Your task to perform on an android device: clear history in the chrome app Image 0: 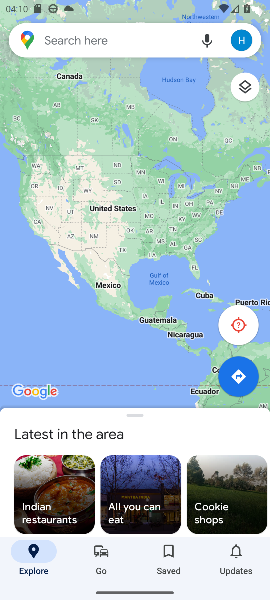
Step 0: press home button
Your task to perform on an android device: clear history in the chrome app Image 1: 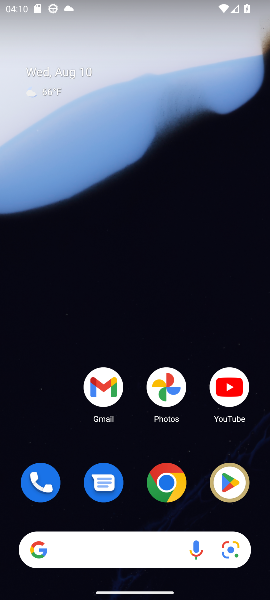
Step 1: drag from (125, 515) to (202, 53)
Your task to perform on an android device: clear history in the chrome app Image 2: 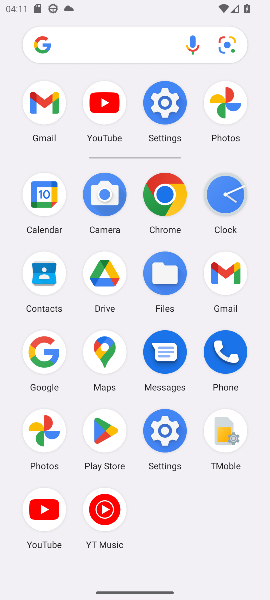
Step 2: click (161, 193)
Your task to perform on an android device: clear history in the chrome app Image 3: 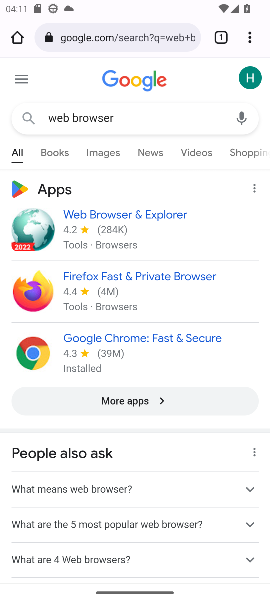
Step 3: drag from (252, 34) to (156, 148)
Your task to perform on an android device: clear history in the chrome app Image 4: 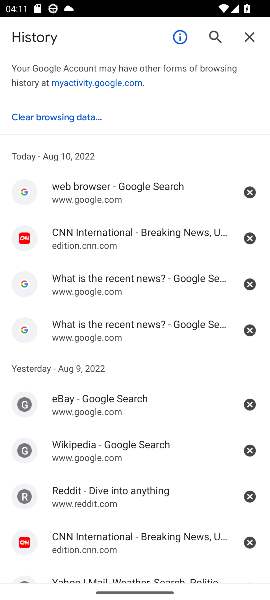
Step 4: click (23, 182)
Your task to perform on an android device: clear history in the chrome app Image 5: 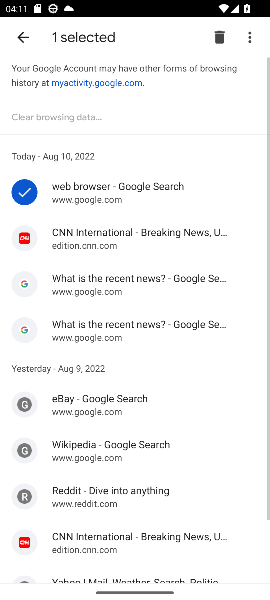
Step 5: click (18, 238)
Your task to perform on an android device: clear history in the chrome app Image 6: 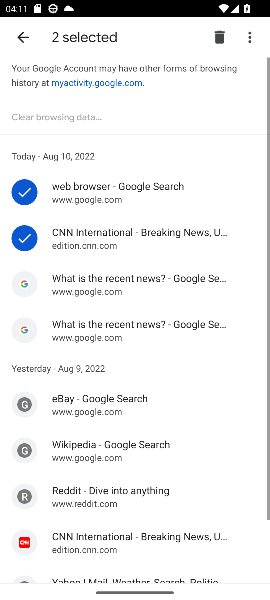
Step 6: click (23, 275)
Your task to perform on an android device: clear history in the chrome app Image 7: 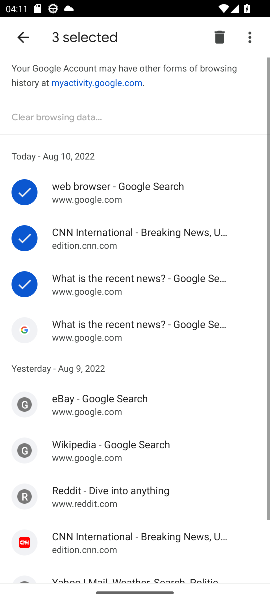
Step 7: click (23, 315)
Your task to perform on an android device: clear history in the chrome app Image 8: 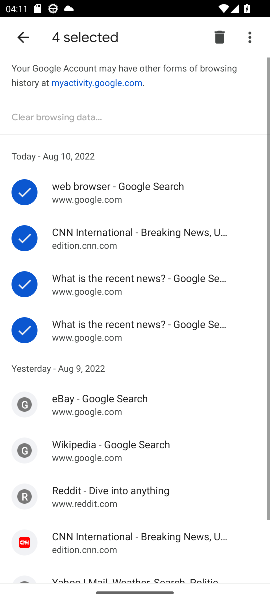
Step 8: drag from (80, 371) to (119, 138)
Your task to perform on an android device: clear history in the chrome app Image 9: 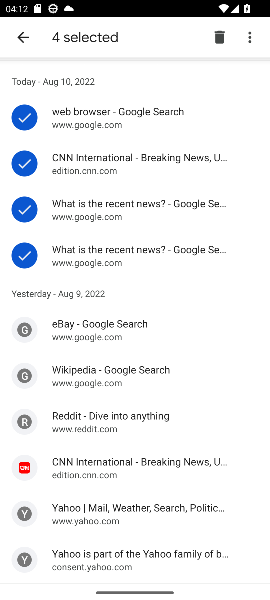
Step 9: click (20, 326)
Your task to perform on an android device: clear history in the chrome app Image 10: 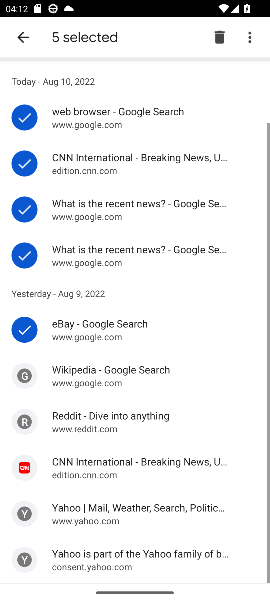
Step 10: click (20, 378)
Your task to perform on an android device: clear history in the chrome app Image 11: 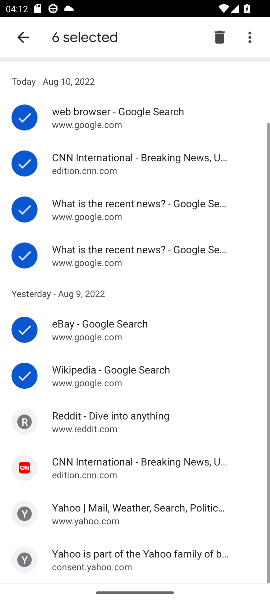
Step 11: click (25, 421)
Your task to perform on an android device: clear history in the chrome app Image 12: 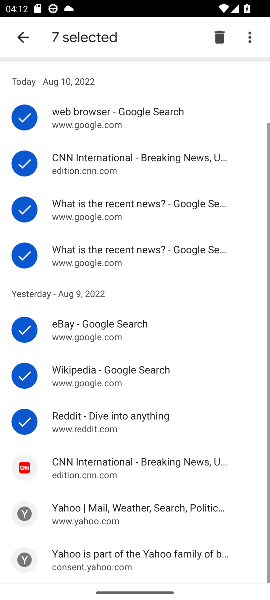
Step 12: click (24, 466)
Your task to perform on an android device: clear history in the chrome app Image 13: 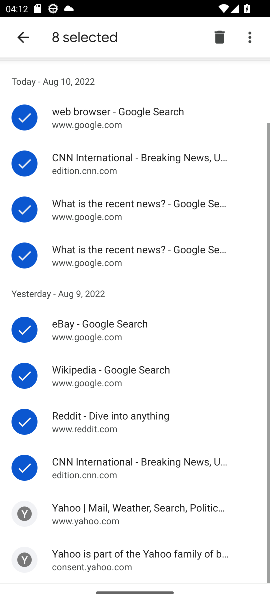
Step 13: click (28, 515)
Your task to perform on an android device: clear history in the chrome app Image 14: 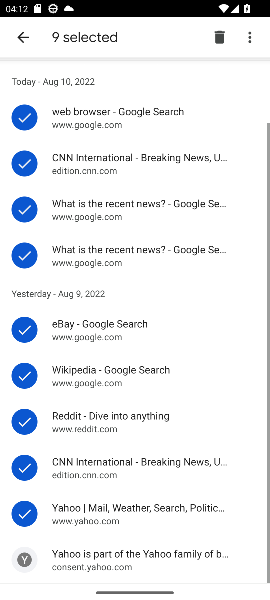
Step 14: click (22, 562)
Your task to perform on an android device: clear history in the chrome app Image 15: 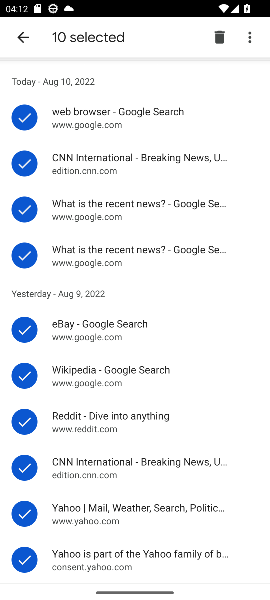
Step 15: click (223, 32)
Your task to perform on an android device: clear history in the chrome app Image 16: 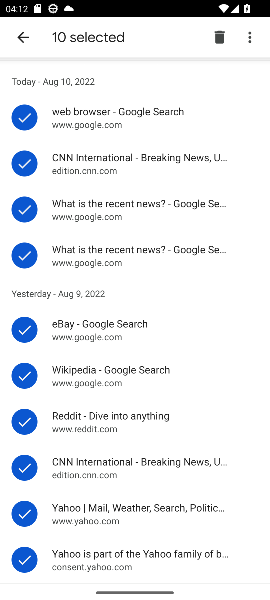
Step 16: click (216, 32)
Your task to perform on an android device: clear history in the chrome app Image 17: 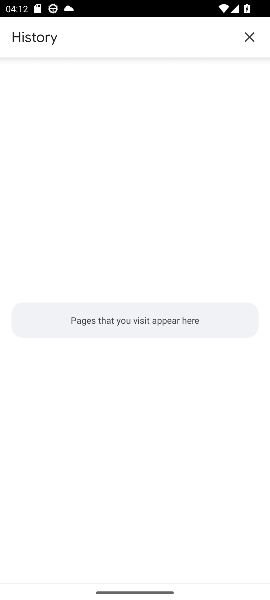
Step 17: task complete